Your task to perform on an android device: What's on my calendar tomorrow? Image 0: 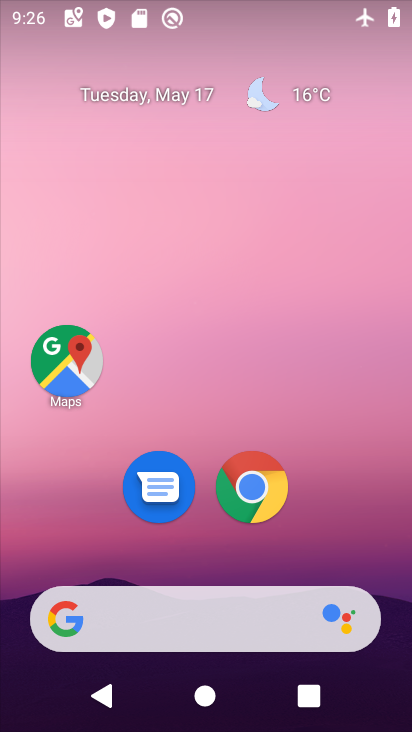
Step 0: click (382, 184)
Your task to perform on an android device: What's on my calendar tomorrow? Image 1: 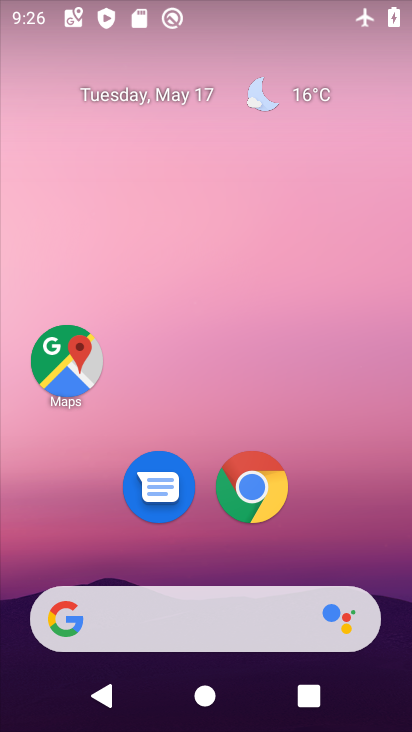
Step 1: drag from (215, 551) to (184, 11)
Your task to perform on an android device: What's on my calendar tomorrow? Image 2: 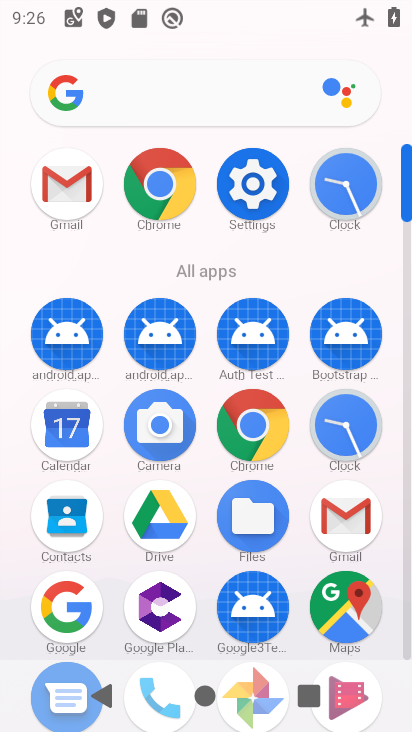
Step 2: click (67, 419)
Your task to perform on an android device: What's on my calendar tomorrow? Image 3: 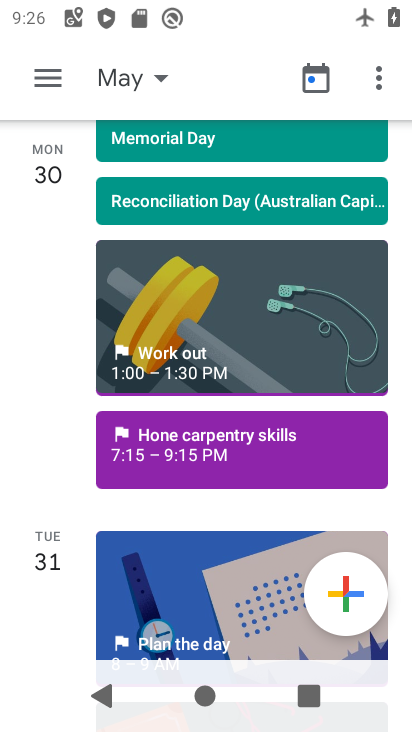
Step 3: click (42, 79)
Your task to perform on an android device: What's on my calendar tomorrow? Image 4: 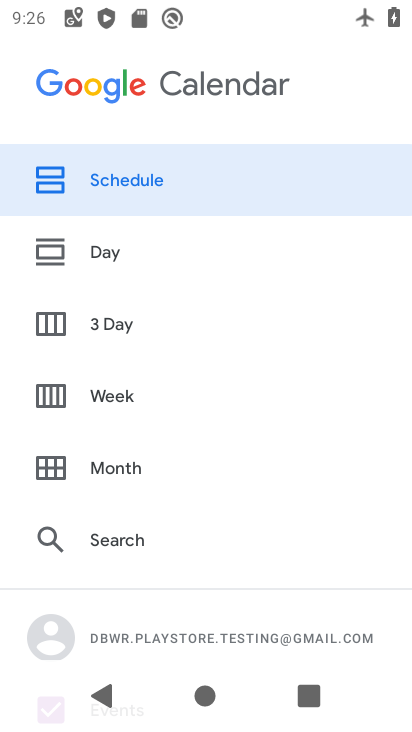
Step 4: click (131, 336)
Your task to perform on an android device: What's on my calendar tomorrow? Image 5: 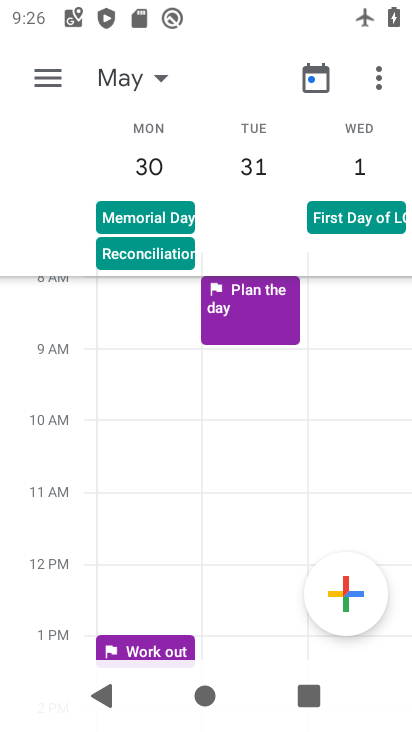
Step 5: task complete